Your task to perform on an android device: Show me productivity apps on the Play Store Image 0: 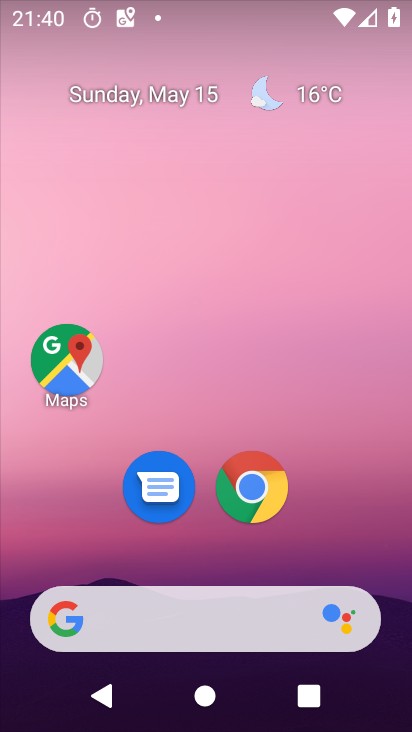
Step 0: drag from (401, 697) to (349, 325)
Your task to perform on an android device: Show me productivity apps on the Play Store Image 1: 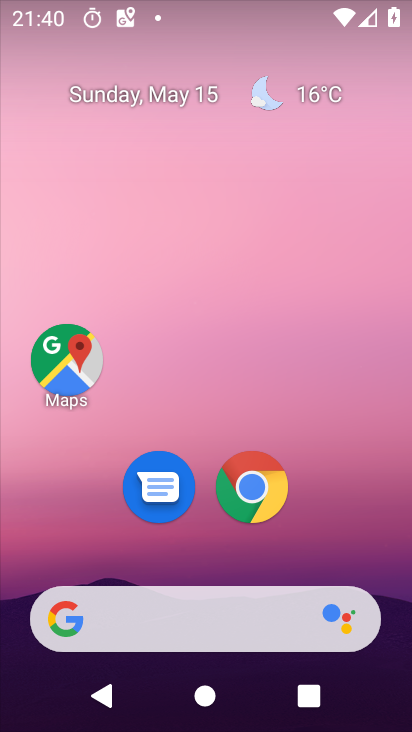
Step 1: click (411, 691)
Your task to perform on an android device: Show me productivity apps on the Play Store Image 2: 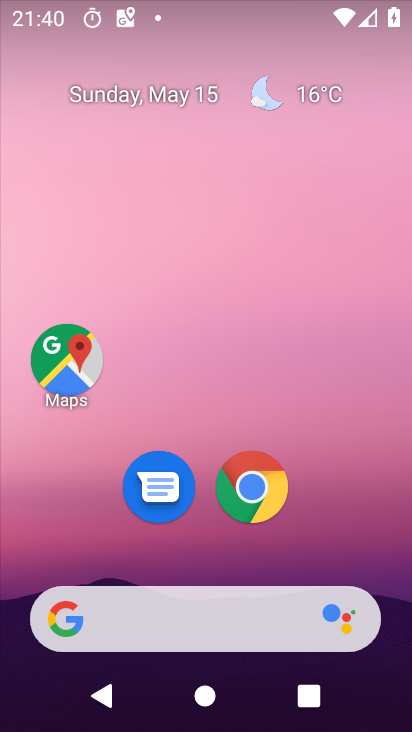
Step 2: drag from (400, 690) to (284, 102)
Your task to perform on an android device: Show me productivity apps on the Play Store Image 3: 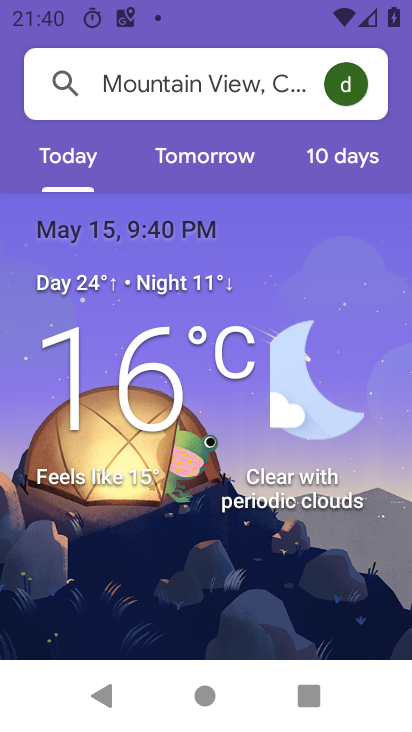
Step 3: press back button
Your task to perform on an android device: Show me productivity apps on the Play Store Image 4: 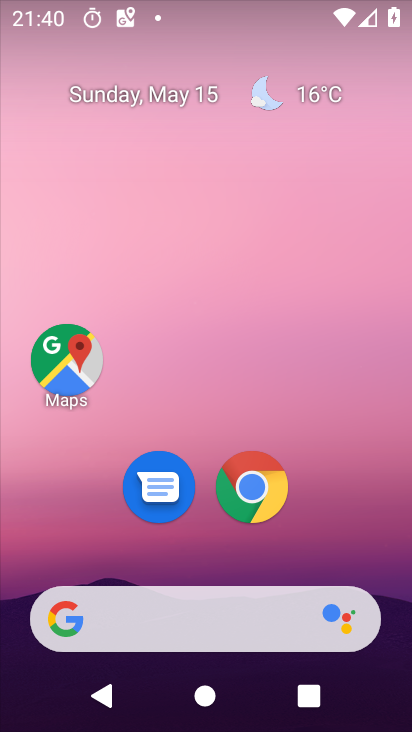
Step 4: drag from (394, 659) to (331, 253)
Your task to perform on an android device: Show me productivity apps on the Play Store Image 5: 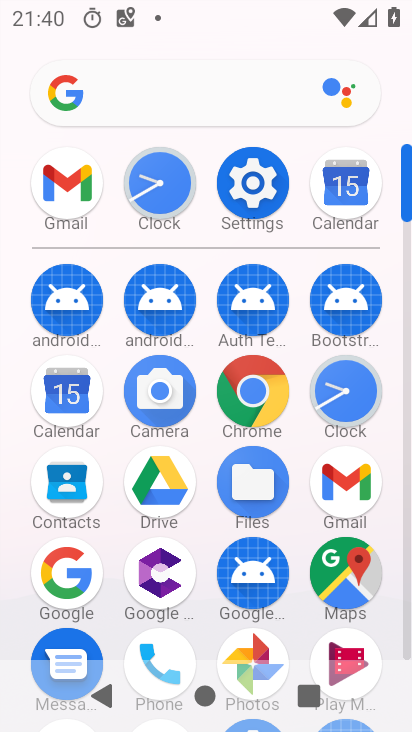
Step 5: drag from (403, 157) to (408, 98)
Your task to perform on an android device: Show me productivity apps on the Play Store Image 6: 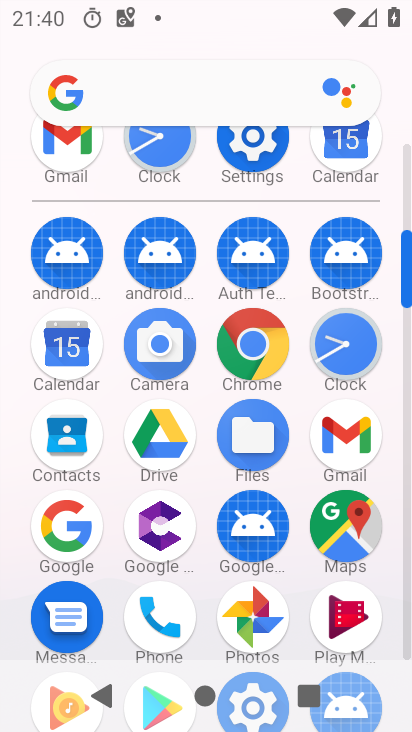
Step 6: drag from (410, 240) to (385, 133)
Your task to perform on an android device: Show me productivity apps on the Play Store Image 7: 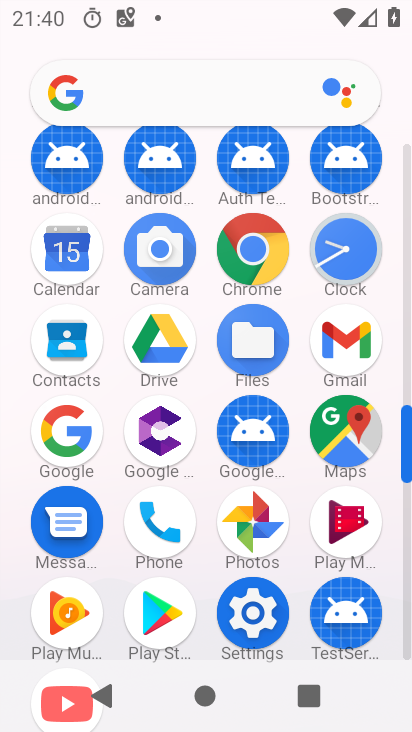
Step 7: click (160, 603)
Your task to perform on an android device: Show me productivity apps on the Play Store Image 8: 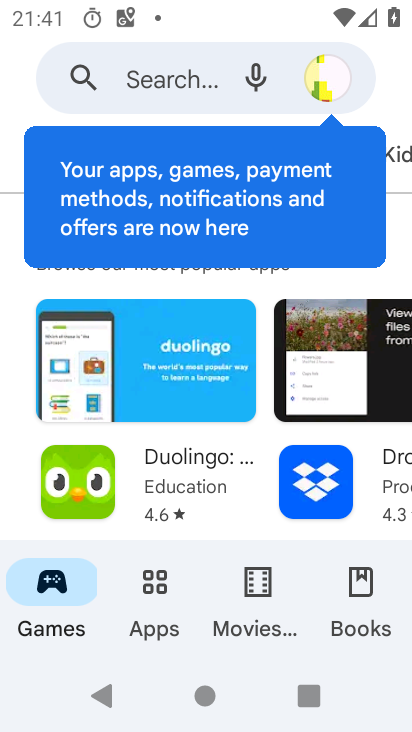
Step 8: click (138, 81)
Your task to perform on an android device: Show me productivity apps on the Play Store Image 9: 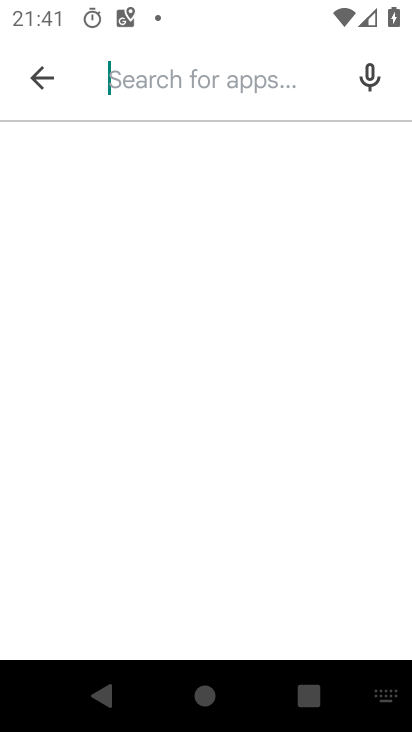
Step 9: type "productivity apps"
Your task to perform on an android device: Show me productivity apps on the Play Store Image 10: 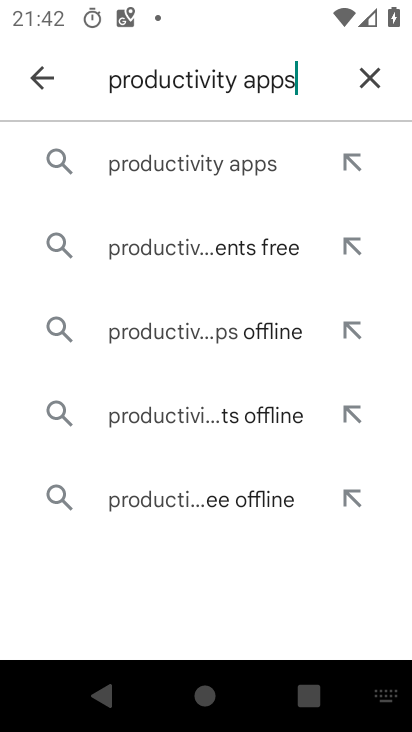
Step 10: click (198, 164)
Your task to perform on an android device: Show me productivity apps on the Play Store Image 11: 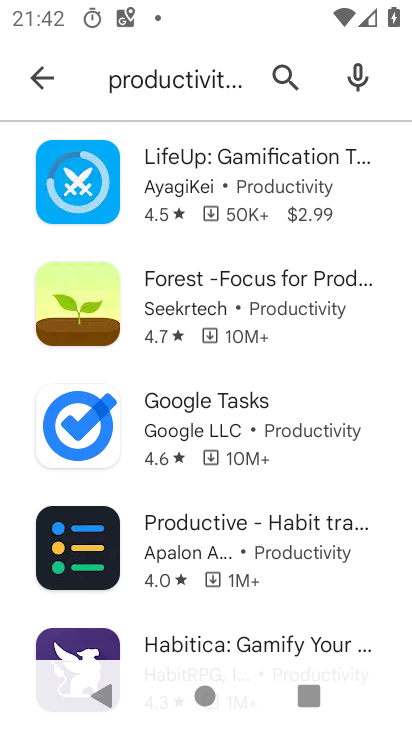
Step 11: task complete